Your task to perform on an android device: toggle priority inbox in the gmail app Image 0: 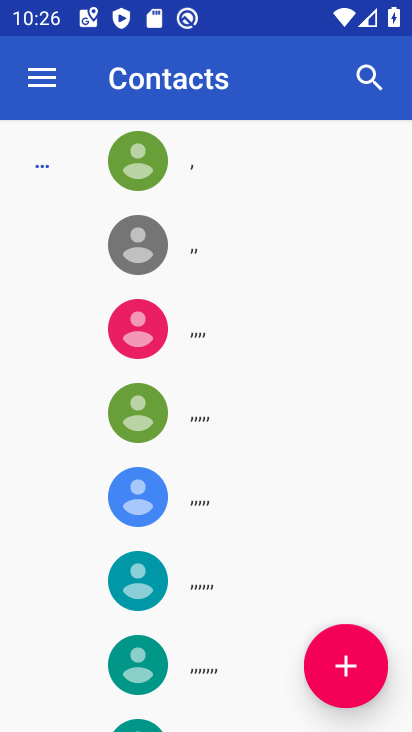
Step 0: press home button
Your task to perform on an android device: toggle priority inbox in the gmail app Image 1: 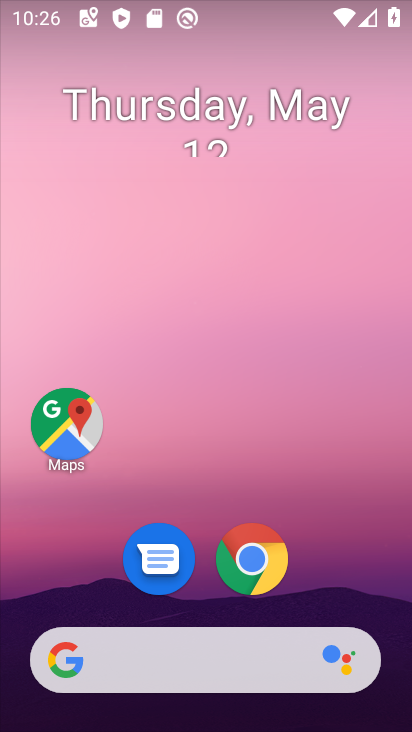
Step 1: drag from (201, 608) to (229, 194)
Your task to perform on an android device: toggle priority inbox in the gmail app Image 2: 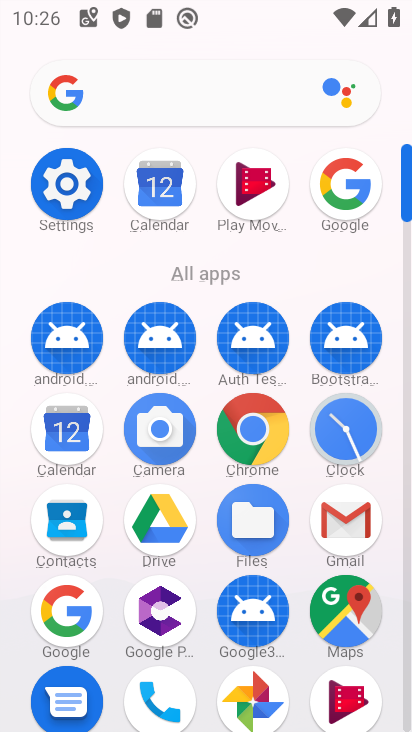
Step 2: click (355, 528)
Your task to perform on an android device: toggle priority inbox in the gmail app Image 3: 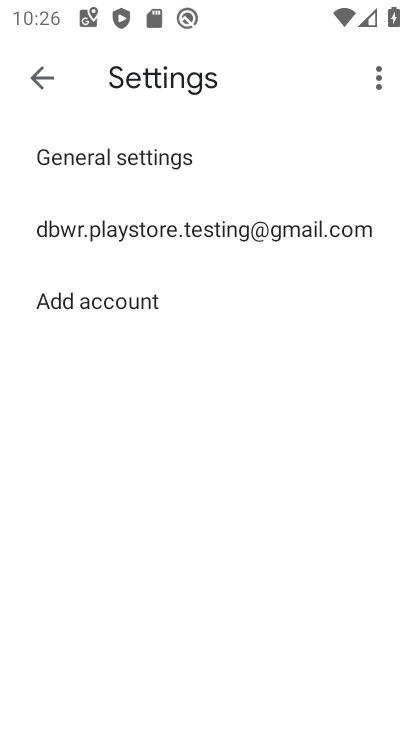
Step 3: click (146, 239)
Your task to perform on an android device: toggle priority inbox in the gmail app Image 4: 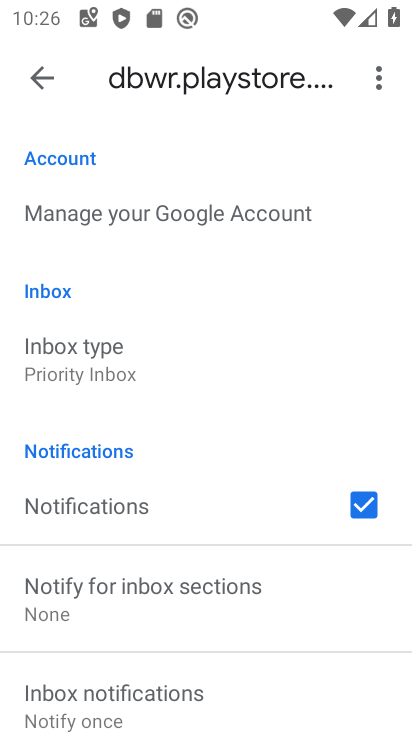
Step 4: click (109, 363)
Your task to perform on an android device: toggle priority inbox in the gmail app Image 5: 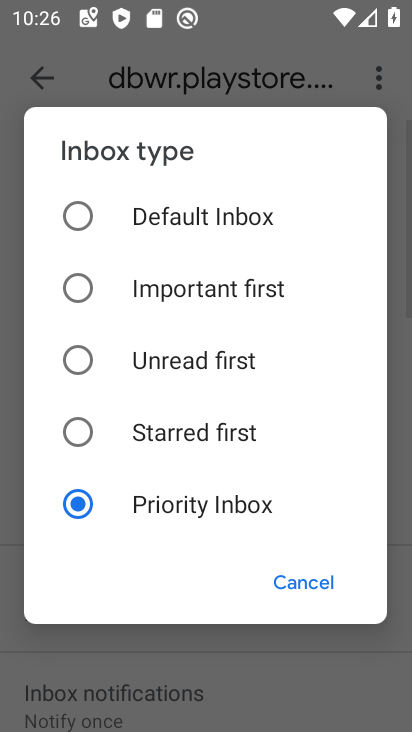
Step 5: click (135, 228)
Your task to perform on an android device: toggle priority inbox in the gmail app Image 6: 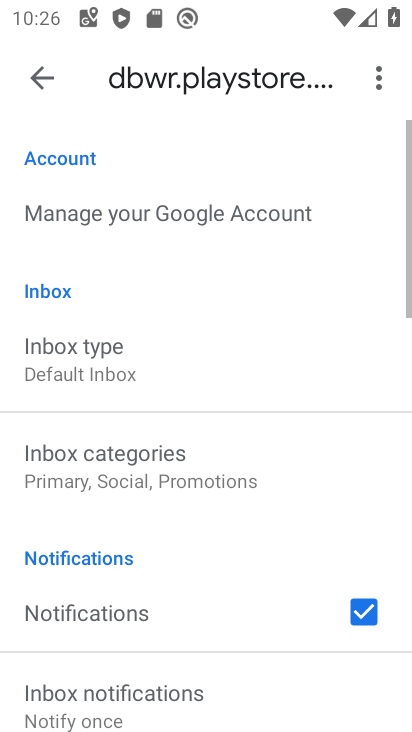
Step 6: task complete